Your task to perform on an android device: open chrome and create a bookmark for the current page Image 0: 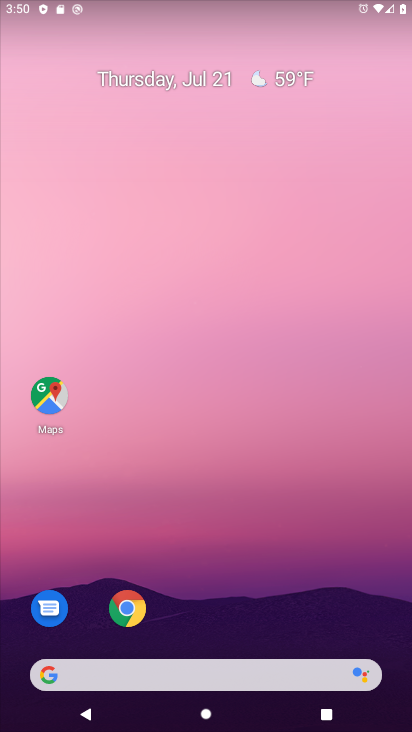
Step 0: drag from (293, 655) to (306, 5)
Your task to perform on an android device: open chrome and create a bookmark for the current page Image 1: 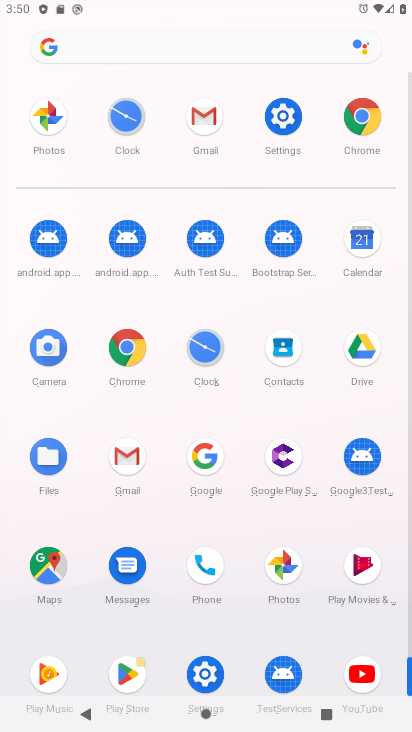
Step 1: click (139, 350)
Your task to perform on an android device: open chrome and create a bookmark for the current page Image 2: 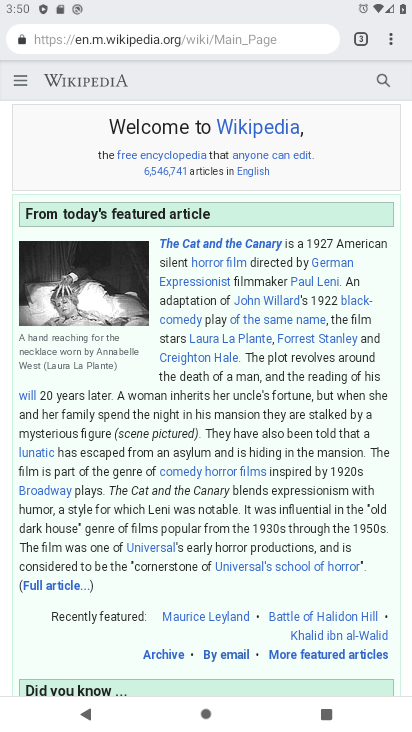
Step 2: task complete